Your task to perform on an android device: delete browsing data in the chrome app Image 0: 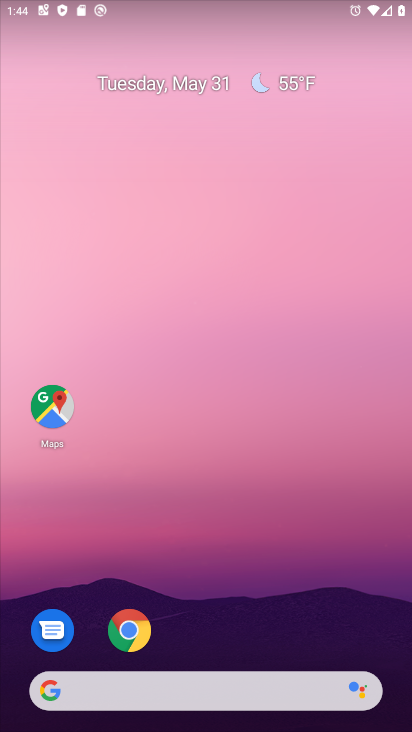
Step 0: drag from (190, 637) to (223, 301)
Your task to perform on an android device: delete browsing data in the chrome app Image 1: 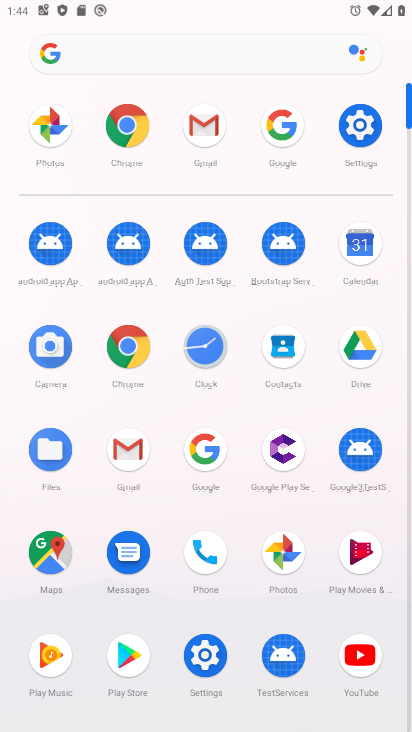
Step 1: click (131, 351)
Your task to perform on an android device: delete browsing data in the chrome app Image 2: 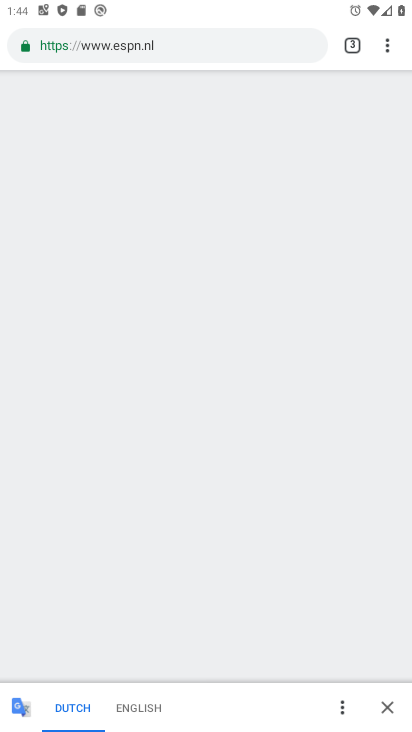
Step 2: click (382, 42)
Your task to perform on an android device: delete browsing data in the chrome app Image 3: 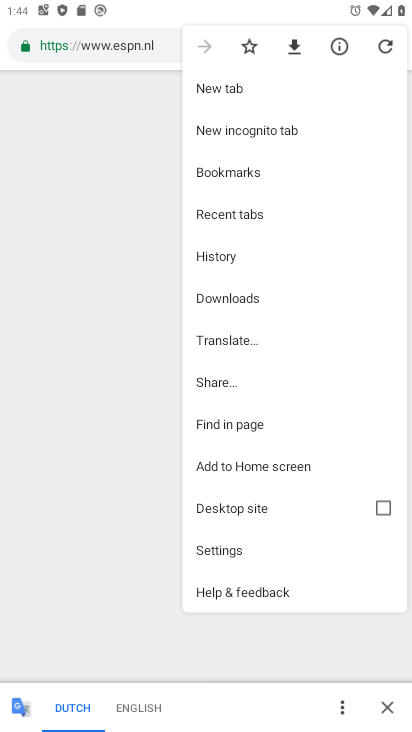
Step 3: click (231, 255)
Your task to perform on an android device: delete browsing data in the chrome app Image 4: 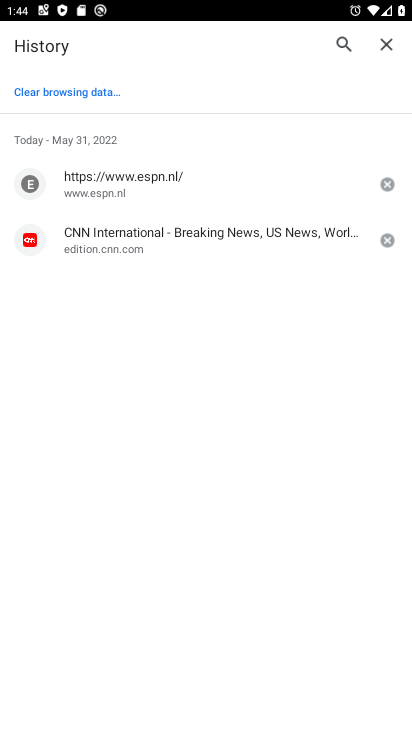
Step 4: click (79, 92)
Your task to perform on an android device: delete browsing data in the chrome app Image 5: 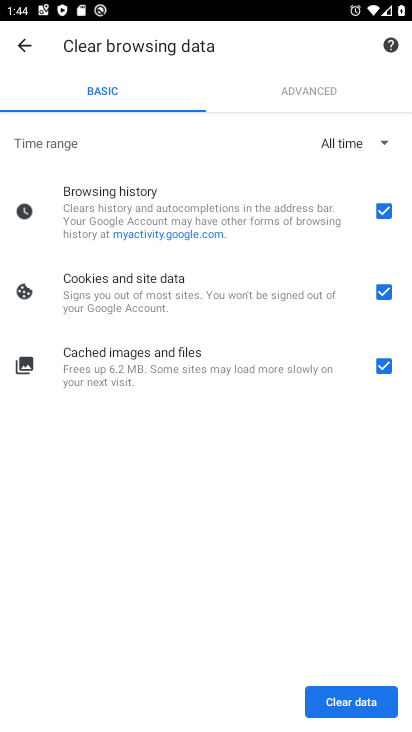
Step 5: click (80, 94)
Your task to perform on an android device: delete browsing data in the chrome app Image 6: 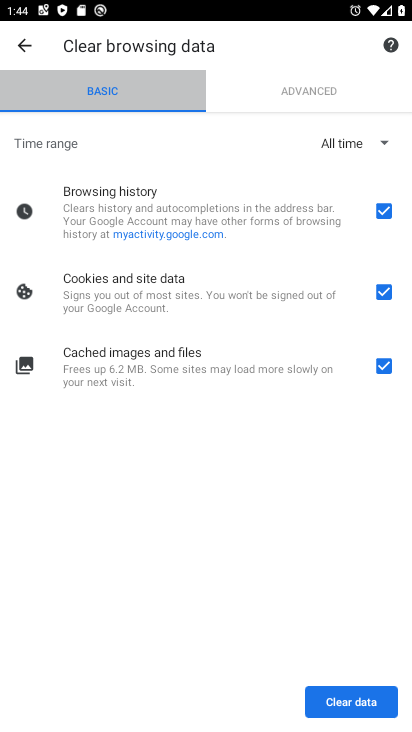
Step 6: click (314, 700)
Your task to perform on an android device: delete browsing data in the chrome app Image 7: 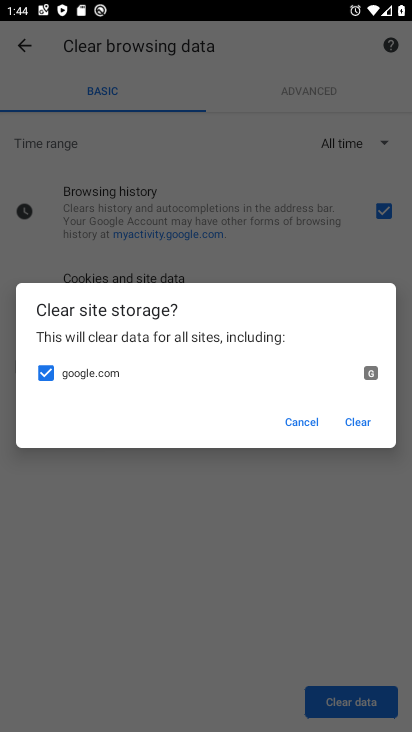
Step 7: click (368, 703)
Your task to perform on an android device: delete browsing data in the chrome app Image 8: 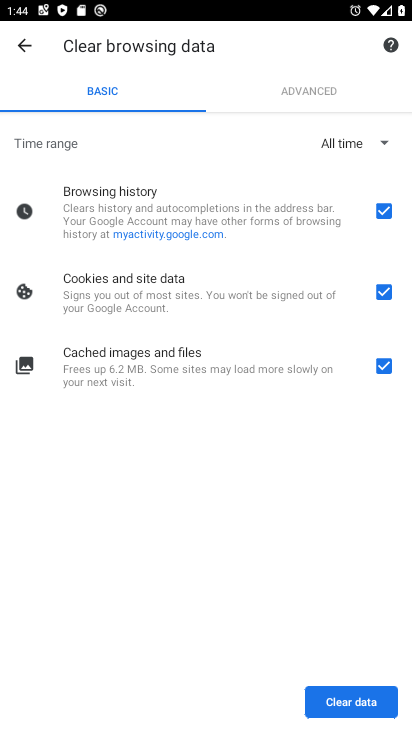
Step 8: click (340, 702)
Your task to perform on an android device: delete browsing data in the chrome app Image 9: 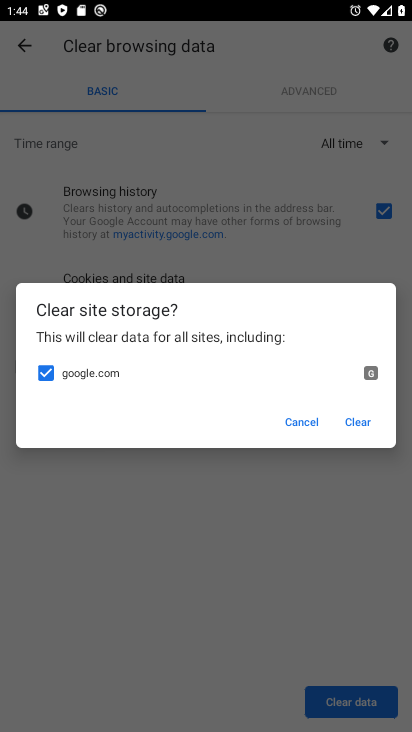
Step 9: click (357, 422)
Your task to perform on an android device: delete browsing data in the chrome app Image 10: 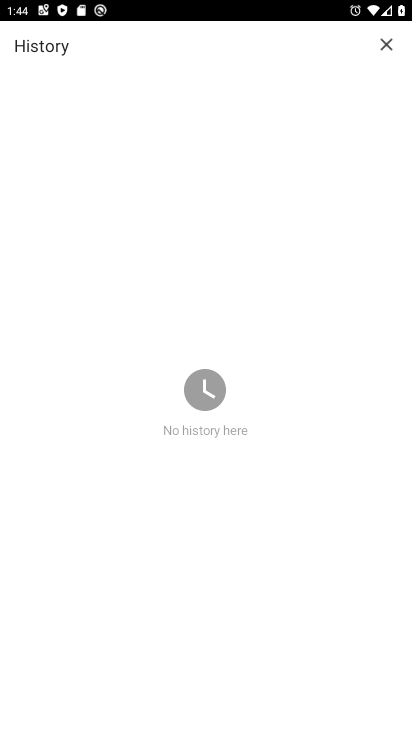
Step 10: task complete